Your task to perform on an android device: Open Chrome and go to the settings page Image 0: 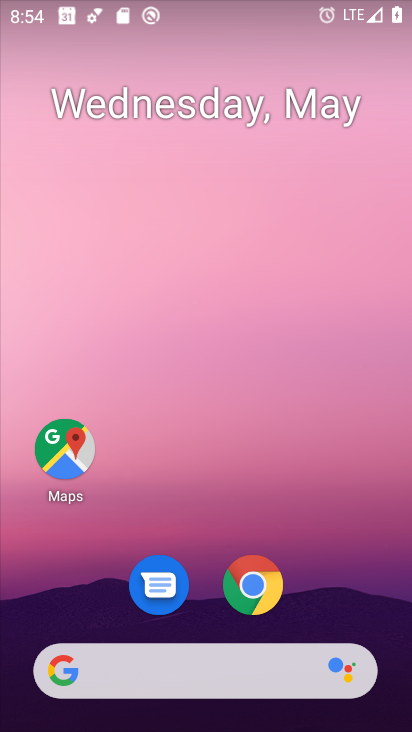
Step 0: click (269, 589)
Your task to perform on an android device: Open Chrome and go to the settings page Image 1: 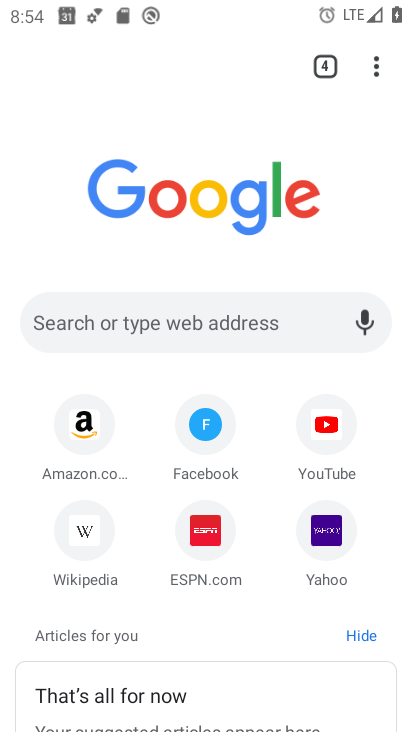
Step 1: click (372, 71)
Your task to perform on an android device: Open Chrome and go to the settings page Image 2: 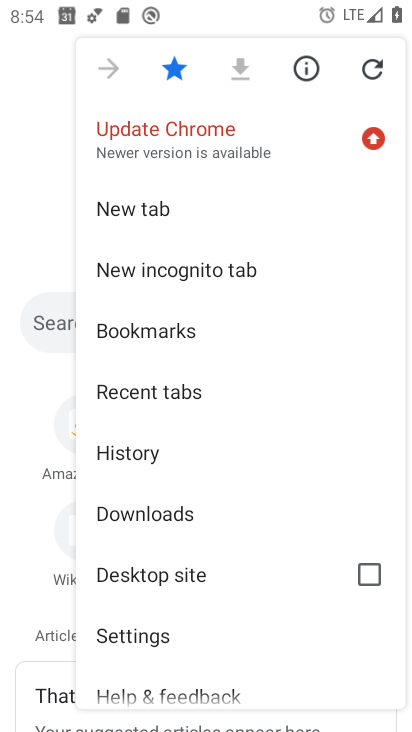
Step 2: click (197, 632)
Your task to perform on an android device: Open Chrome and go to the settings page Image 3: 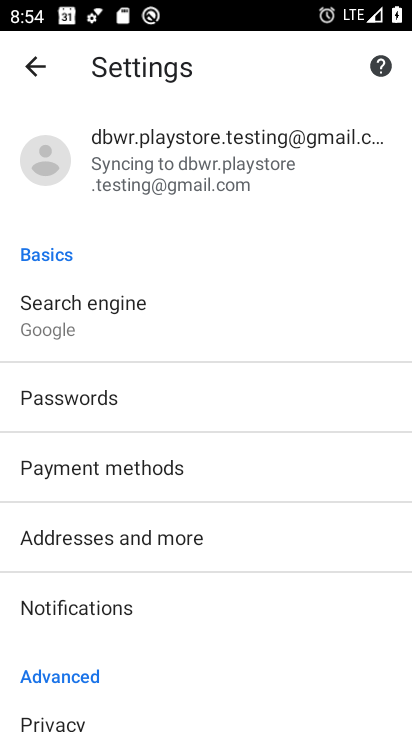
Step 3: task complete